Your task to perform on an android device: Open the web browser Image 0: 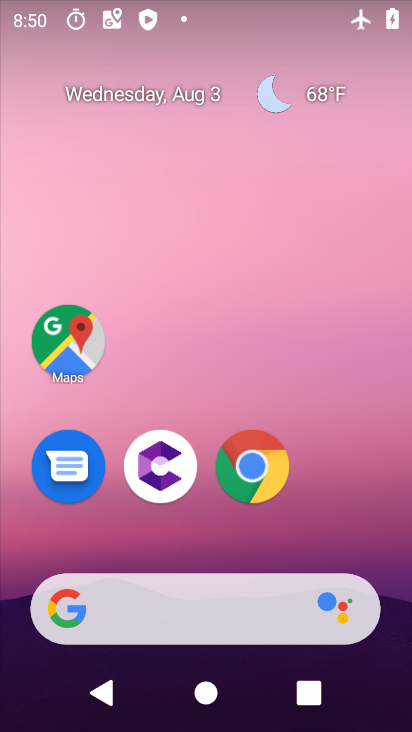
Step 0: drag from (345, 504) to (393, 40)
Your task to perform on an android device: Open the web browser Image 1: 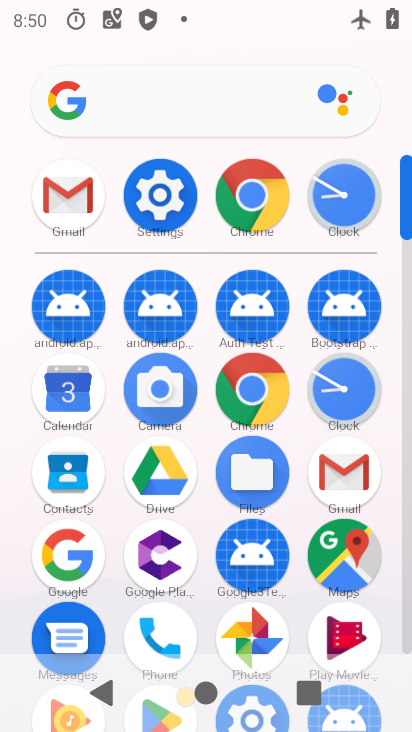
Step 1: click (260, 392)
Your task to perform on an android device: Open the web browser Image 2: 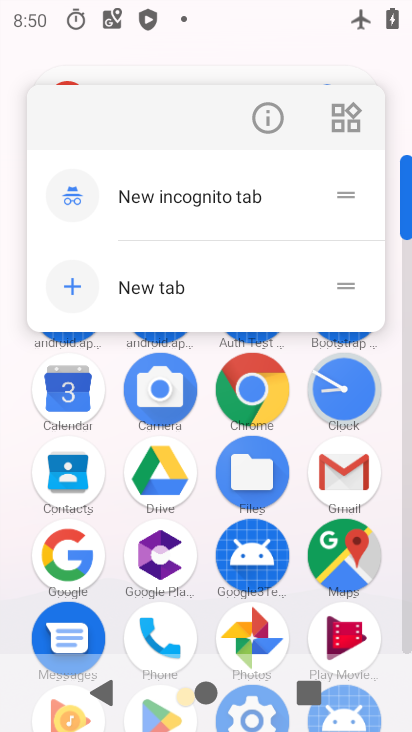
Step 2: click (258, 394)
Your task to perform on an android device: Open the web browser Image 3: 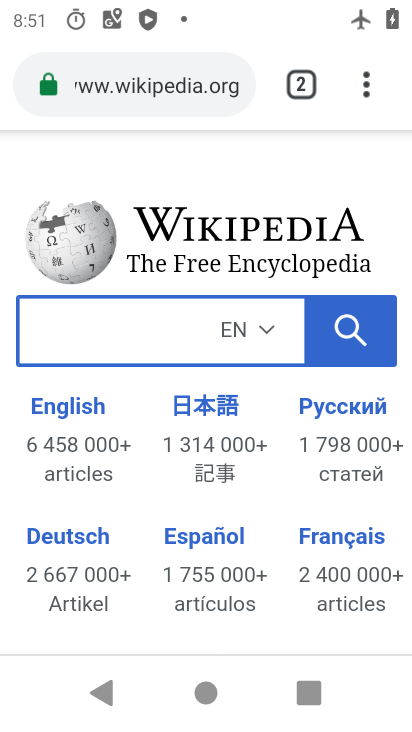
Step 3: task complete